Your task to perform on an android device: turn off location history Image 0: 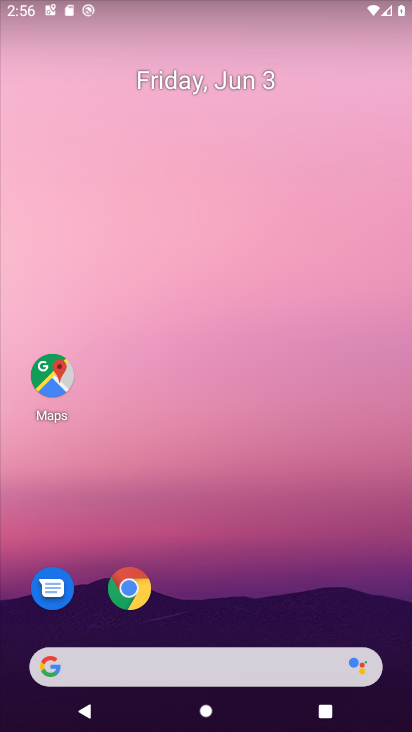
Step 0: drag from (264, 602) to (328, 122)
Your task to perform on an android device: turn off location history Image 1: 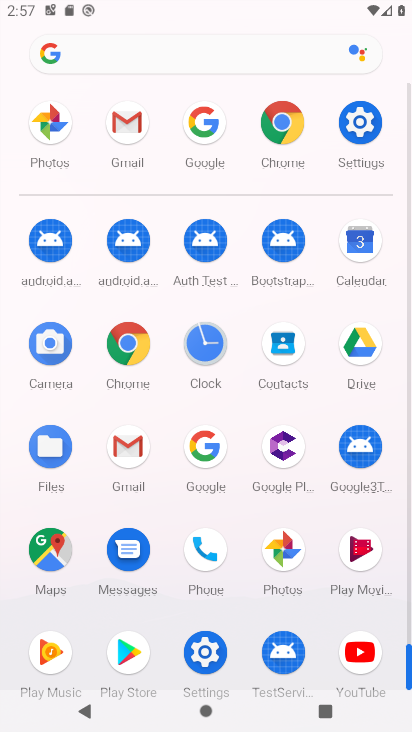
Step 1: click (362, 137)
Your task to perform on an android device: turn off location history Image 2: 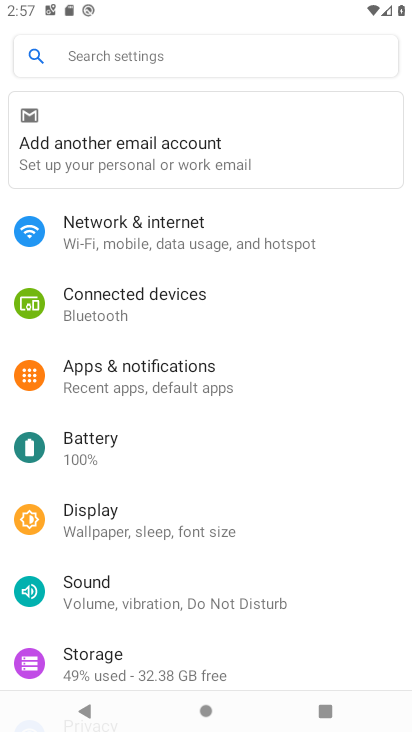
Step 2: drag from (150, 556) to (234, 185)
Your task to perform on an android device: turn off location history Image 3: 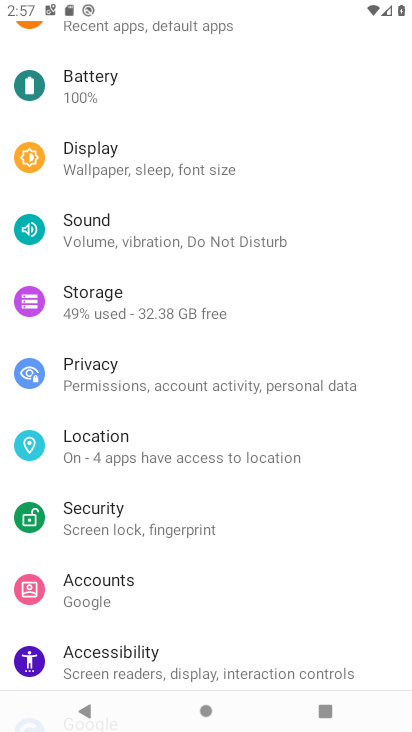
Step 3: drag from (155, 553) to (246, 255)
Your task to perform on an android device: turn off location history Image 4: 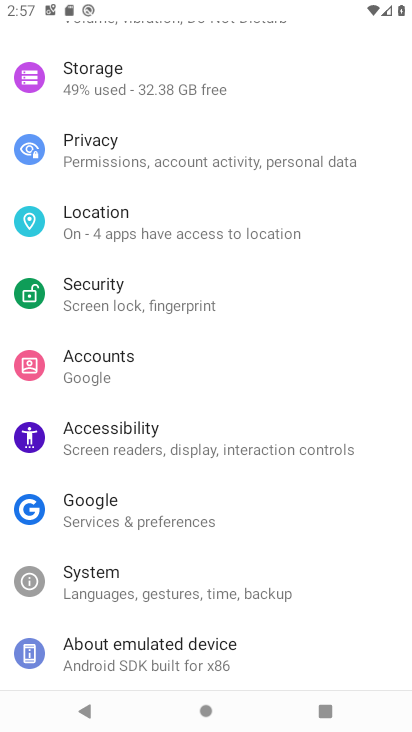
Step 4: click (225, 232)
Your task to perform on an android device: turn off location history Image 5: 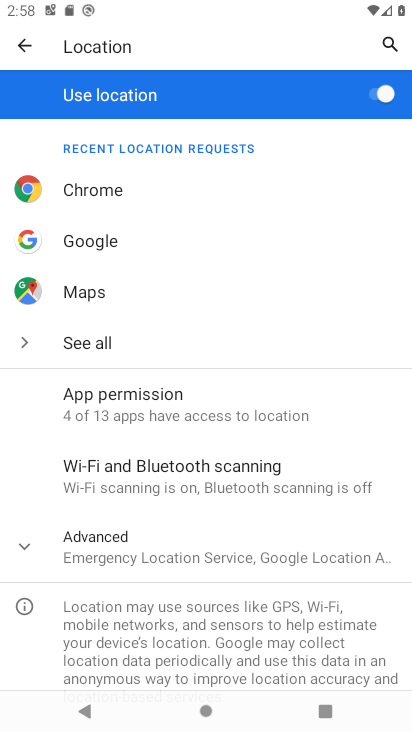
Step 5: click (189, 556)
Your task to perform on an android device: turn off location history Image 6: 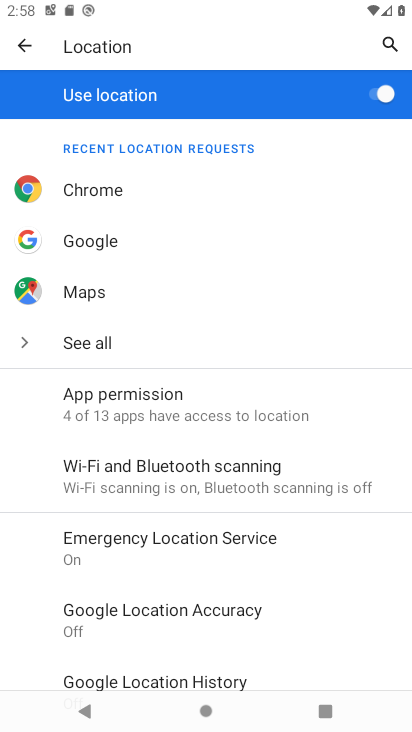
Step 6: drag from (168, 586) to (212, 405)
Your task to perform on an android device: turn off location history Image 7: 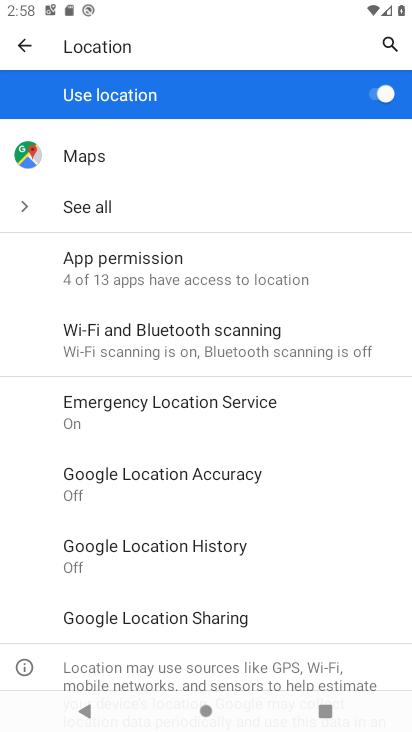
Step 7: click (189, 546)
Your task to perform on an android device: turn off location history Image 8: 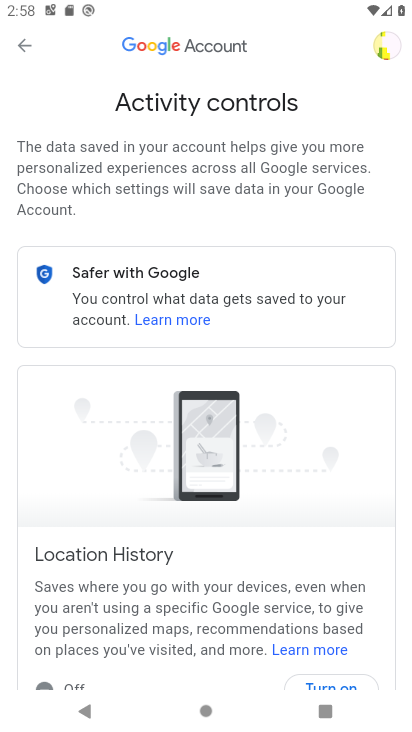
Step 8: drag from (185, 559) to (198, 260)
Your task to perform on an android device: turn off location history Image 9: 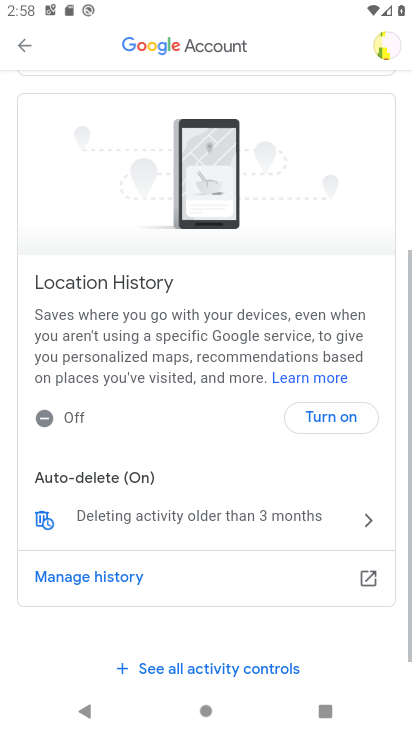
Step 9: click (209, 212)
Your task to perform on an android device: turn off location history Image 10: 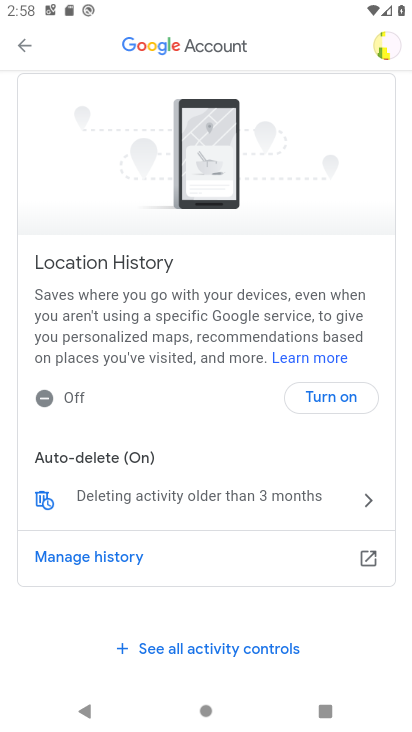
Step 10: task complete